Your task to perform on an android device: Open Chrome and go to settings Image 0: 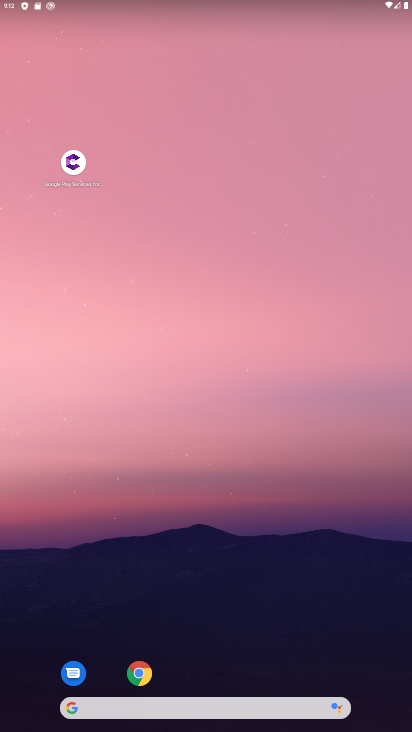
Step 0: drag from (343, 654) to (342, 81)
Your task to perform on an android device: Open Chrome and go to settings Image 1: 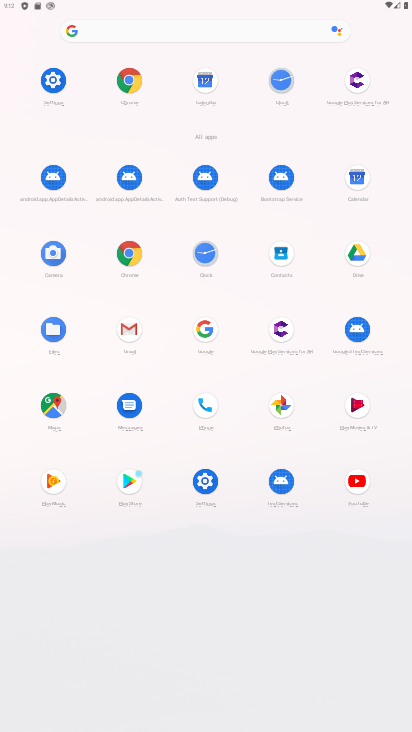
Step 1: click (127, 254)
Your task to perform on an android device: Open Chrome and go to settings Image 2: 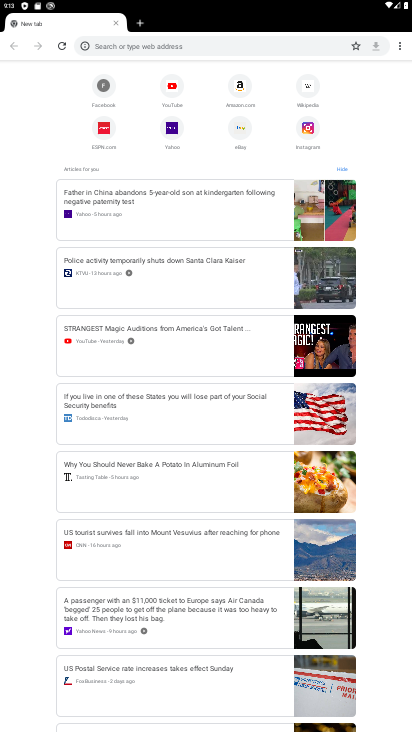
Step 2: click (400, 46)
Your task to perform on an android device: Open Chrome and go to settings Image 3: 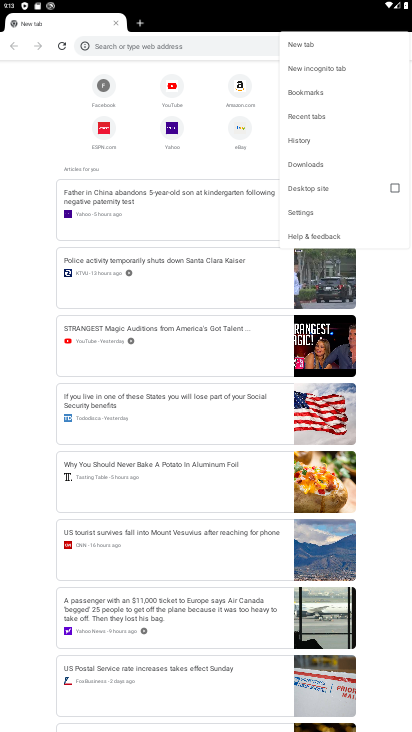
Step 3: click (324, 215)
Your task to perform on an android device: Open Chrome and go to settings Image 4: 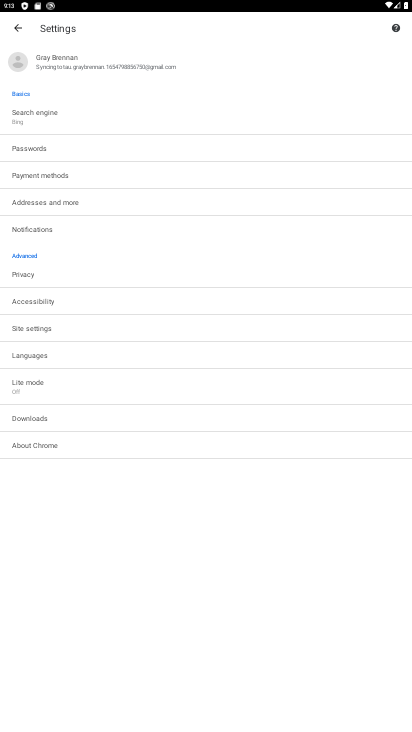
Step 4: task complete